Your task to perform on an android device: Open CNN.com Image 0: 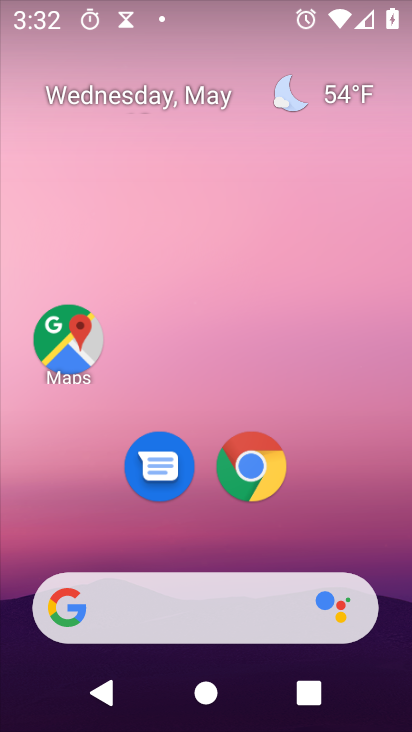
Step 0: click (255, 447)
Your task to perform on an android device: Open CNN.com Image 1: 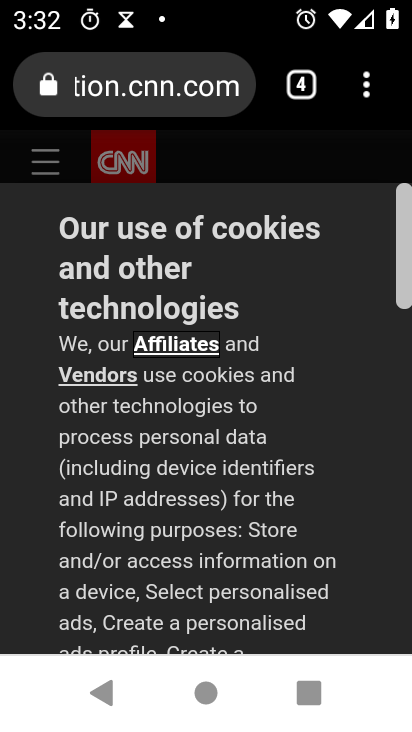
Step 1: task complete